Your task to perform on an android device: Go to wifi settings Image 0: 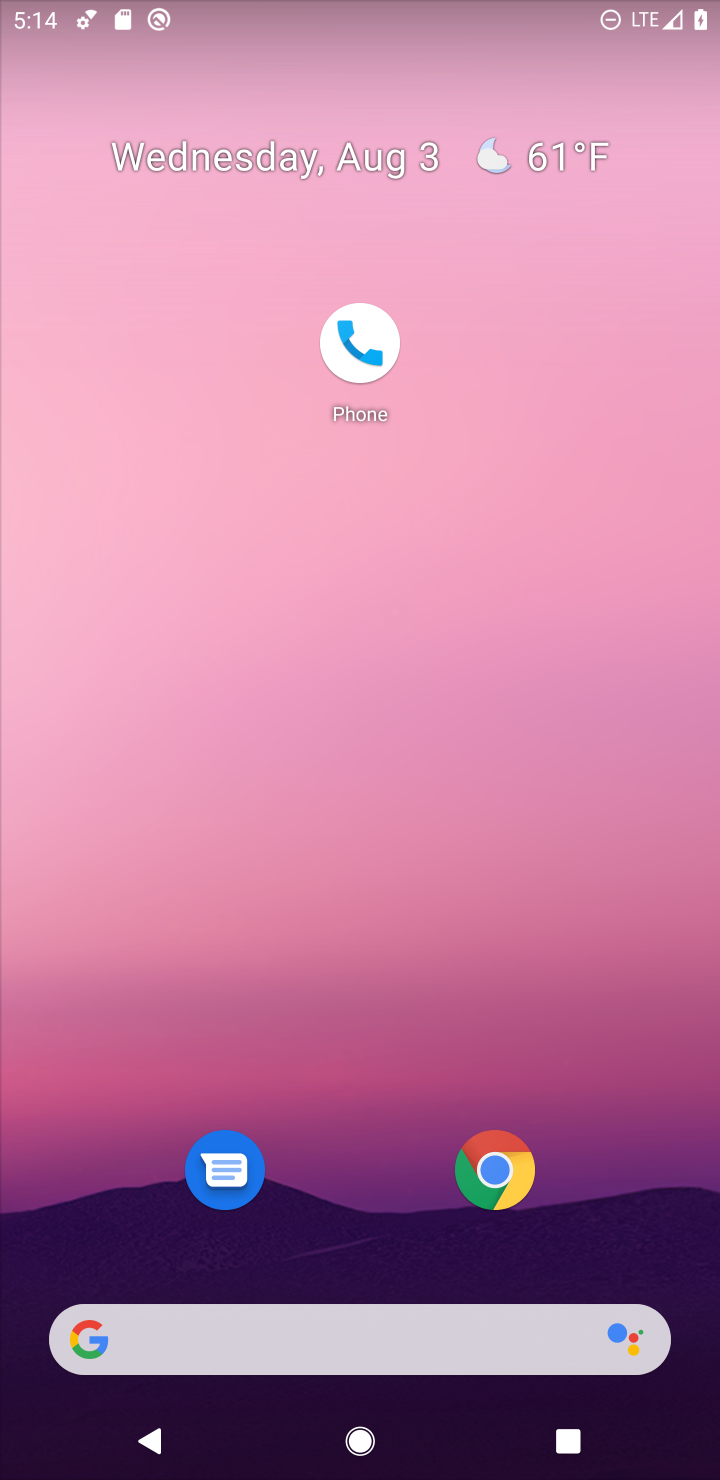
Step 0: drag from (305, 915) to (320, 49)
Your task to perform on an android device: Go to wifi settings Image 1: 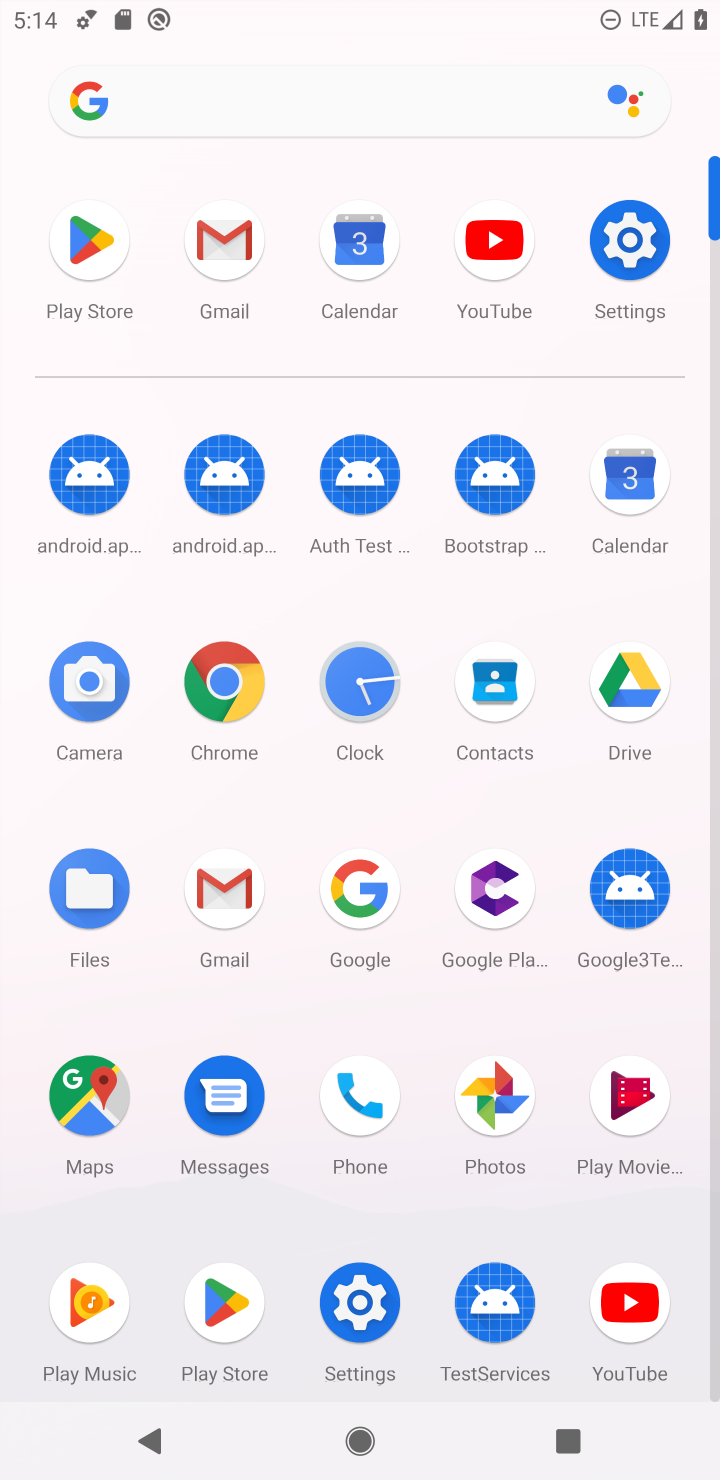
Step 1: click (625, 263)
Your task to perform on an android device: Go to wifi settings Image 2: 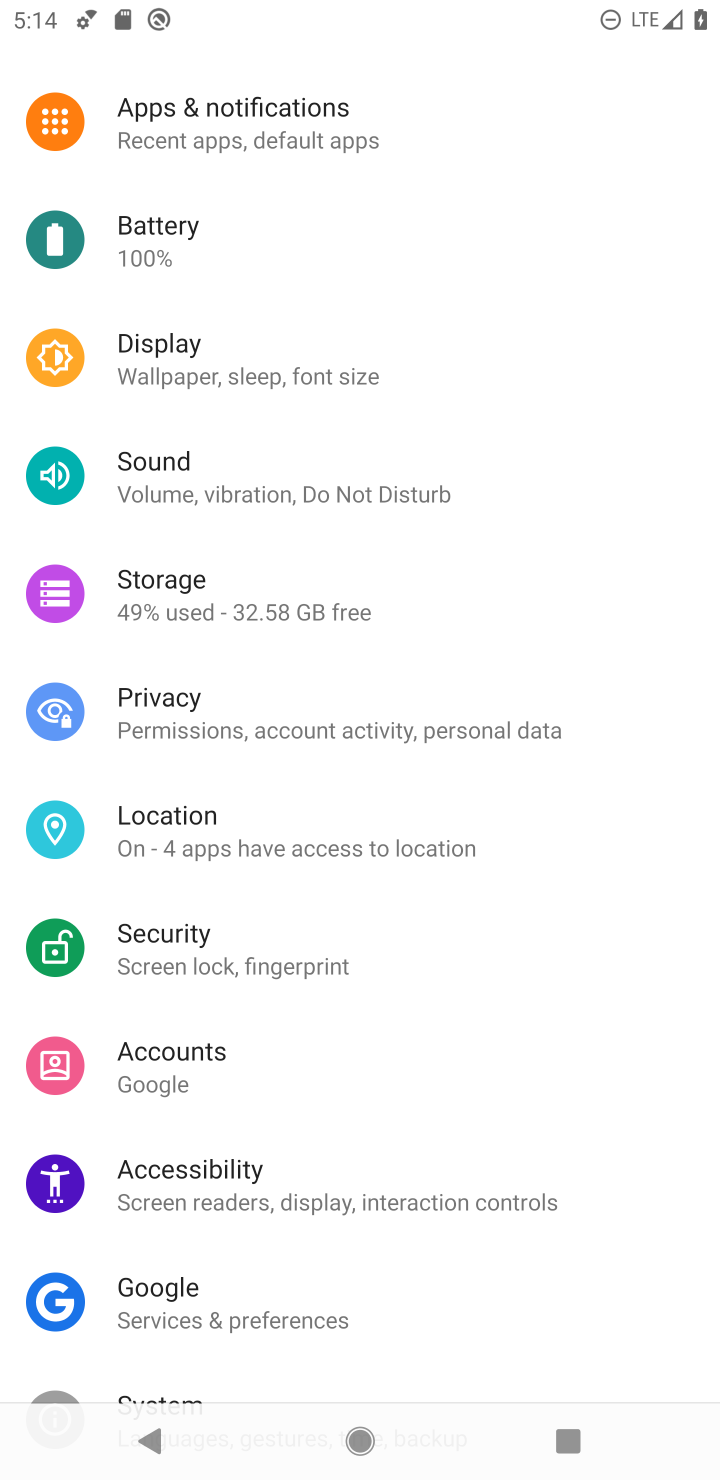
Step 2: drag from (282, 363) to (278, 1460)
Your task to perform on an android device: Go to wifi settings Image 3: 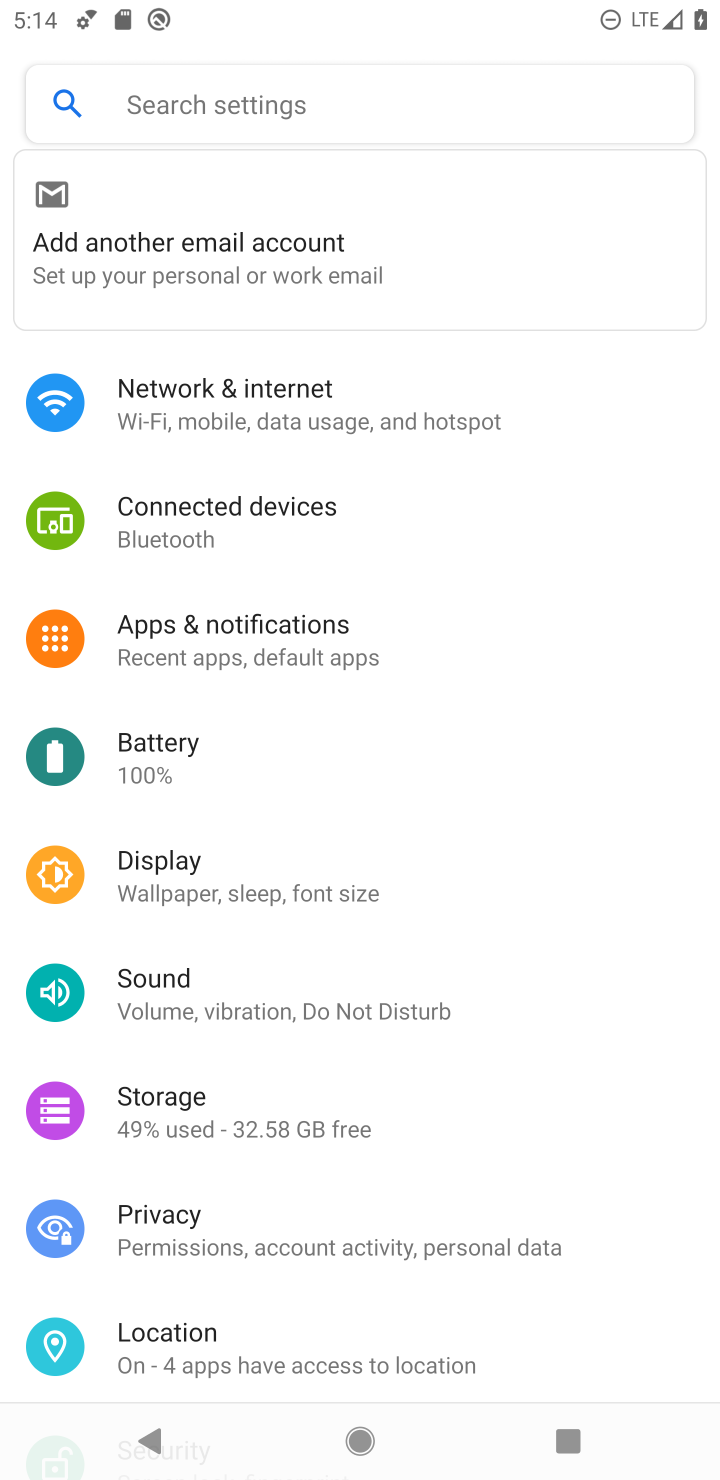
Step 3: click (307, 403)
Your task to perform on an android device: Go to wifi settings Image 4: 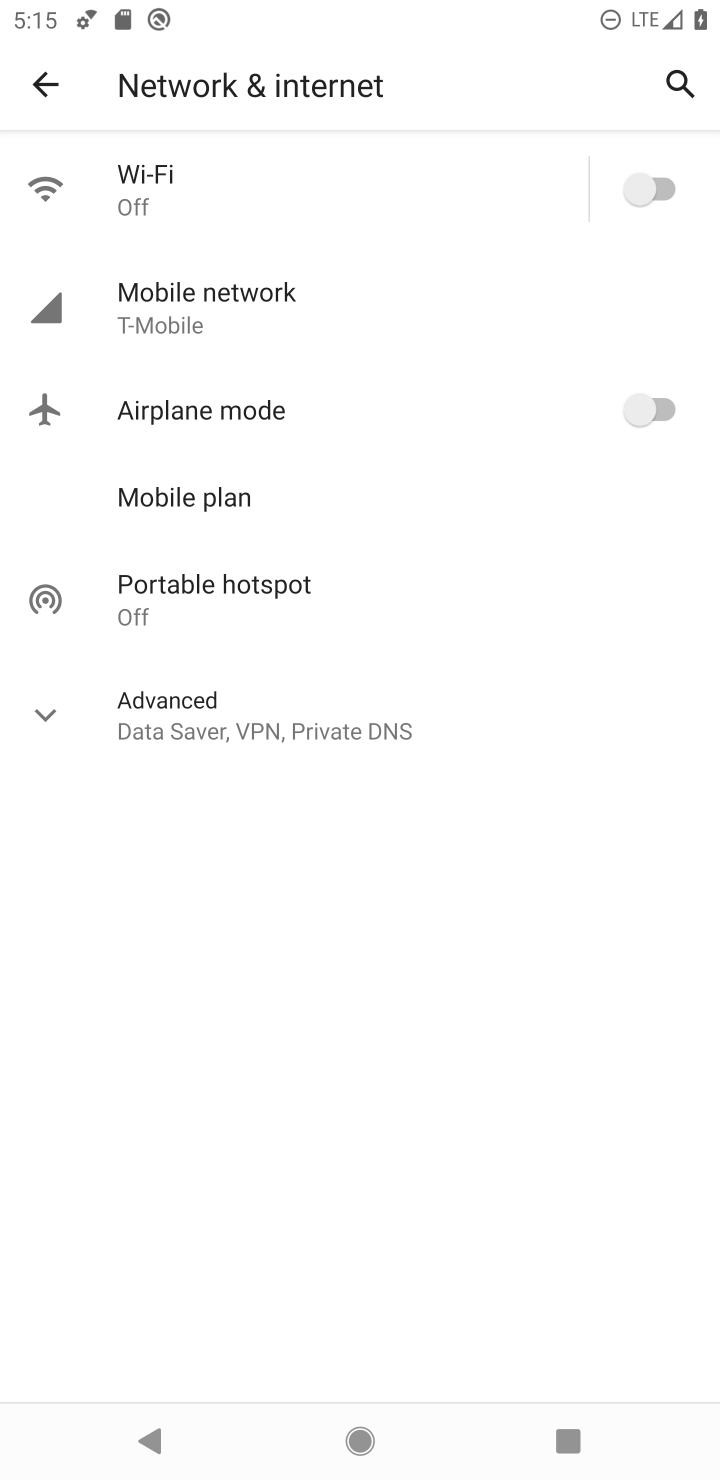
Step 4: click (207, 194)
Your task to perform on an android device: Go to wifi settings Image 5: 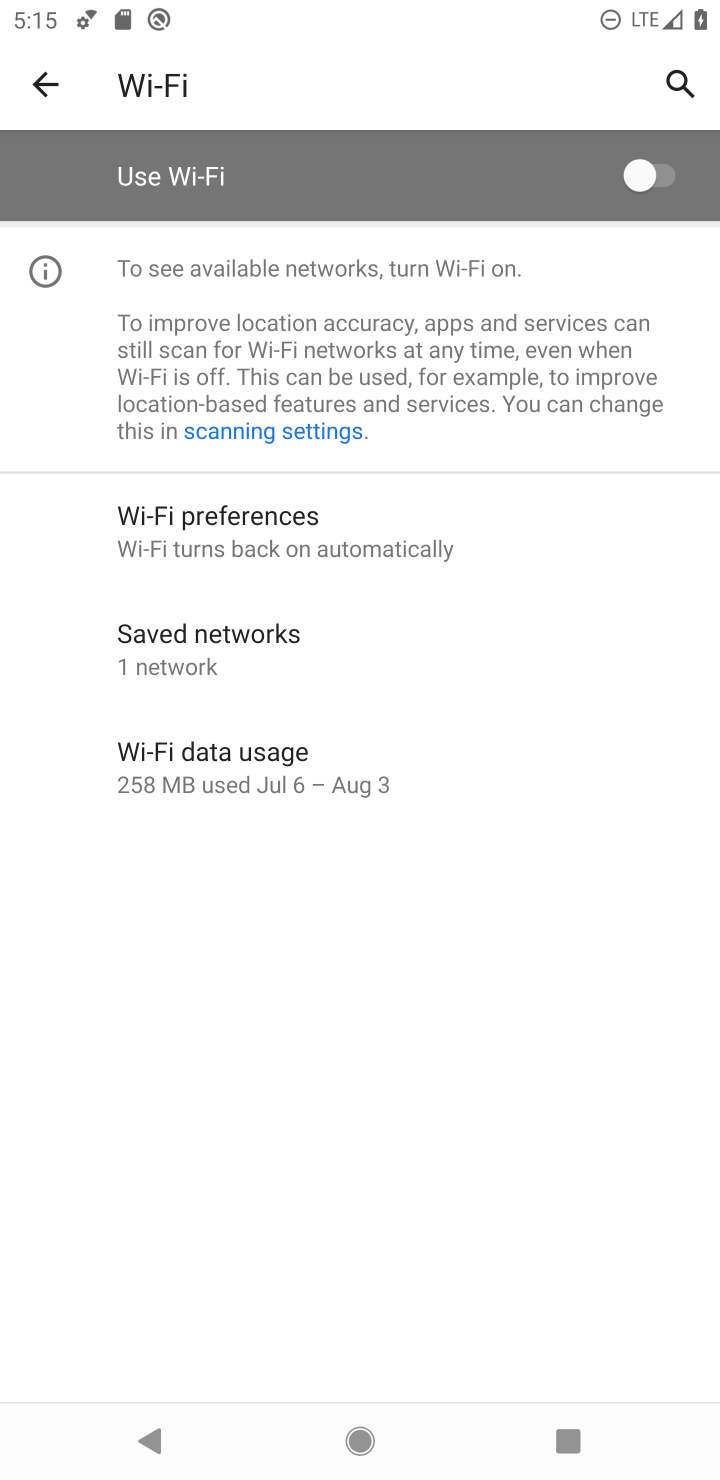
Step 5: task complete